Your task to perform on an android device: Open CNN.com Image 0: 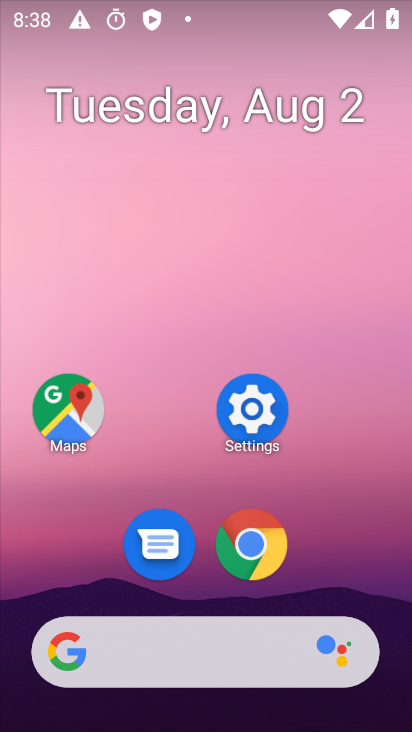
Step 0: click (250, 544)
Your task to perform on an android device: Open CNN.com Image 1: 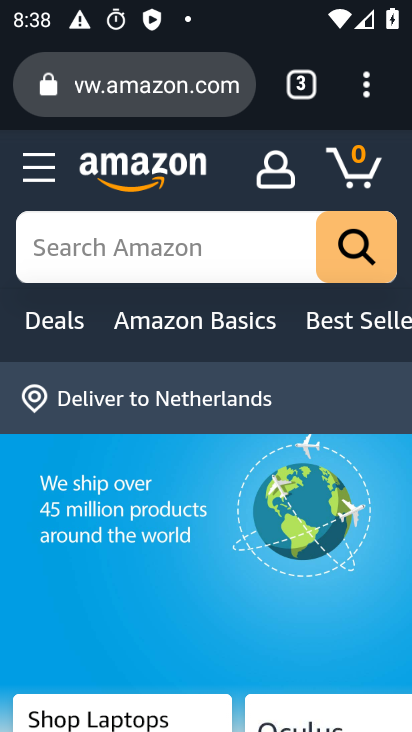
Step 1: drag from (364, 91) to (179, 167)
Your task to perform on an android device: Open CNN.com Image 2: 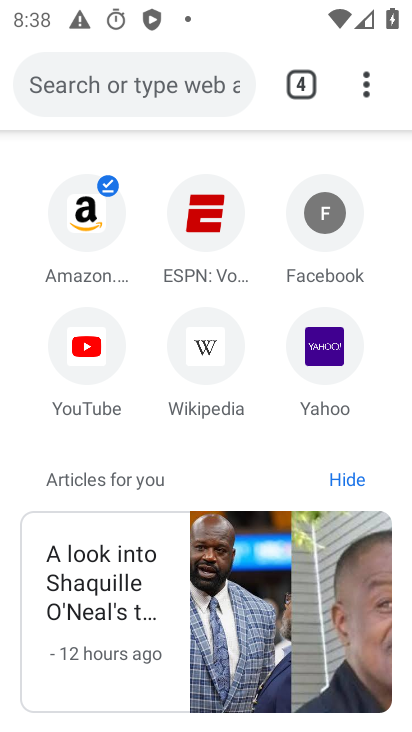
Step 2: type "CNN.com"
Your task to perform on an android device: Open CNN.com Image 3: 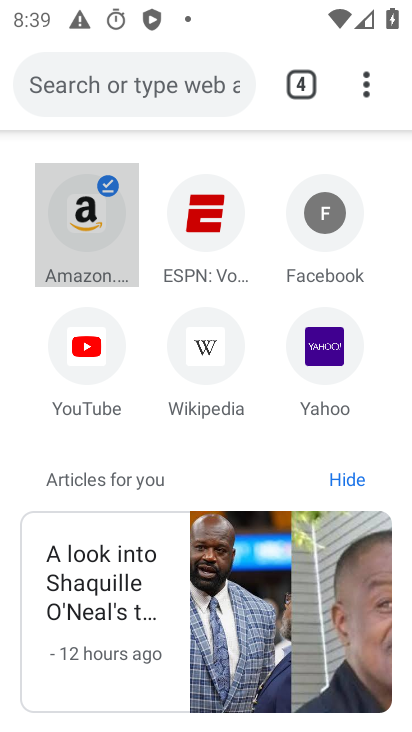
Step 3: click (142, 84)
Your task to perform on an android device: Open CNN.com Image 4: 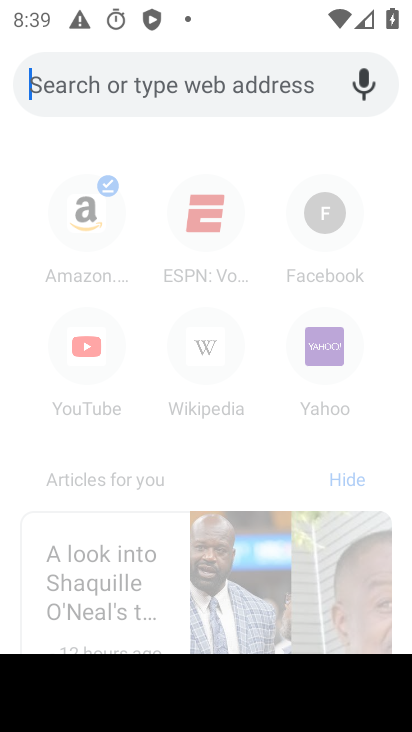
Step 4: type "CNN.com"
Your task to perform on an android device: Open CNN.com Image 5: 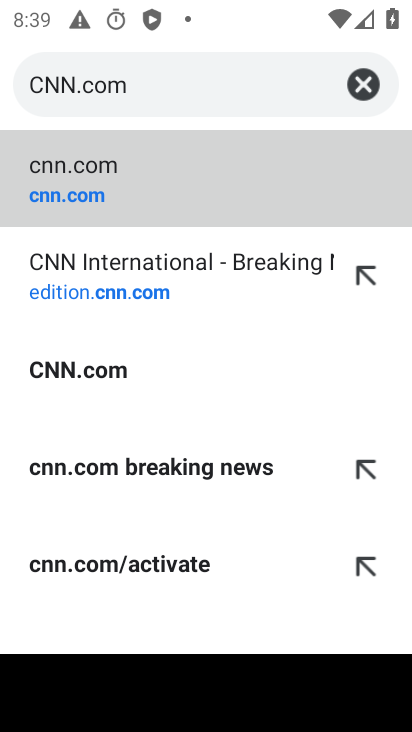
Step 5: click (151, 194)
Your task to perform on an android device: Open CNN.com Image 6: 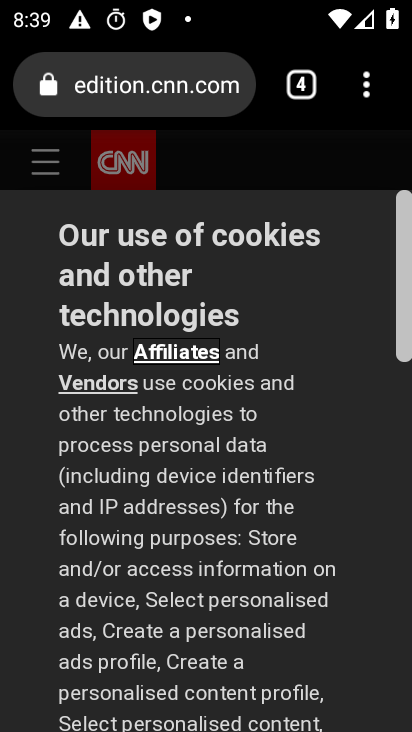
Step 6: drag from (151, 608) to (353, 93)
Your task to perform on an android device: Open CNN.com Image 7: 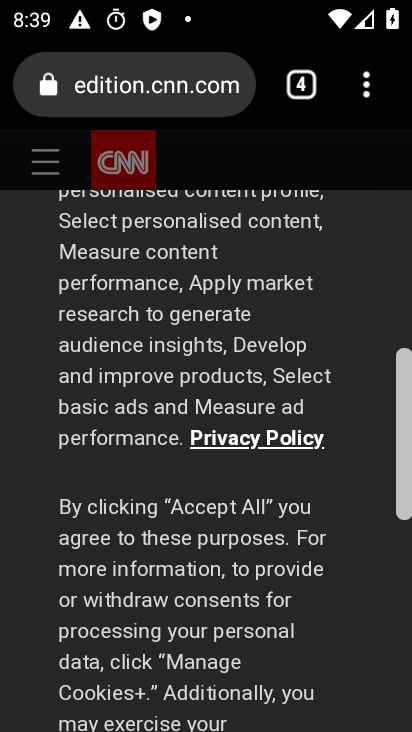
Step 7: drag from (165, 639) to (341, 169)
Your task to perform on an android device: Open CNN.com Image 8: 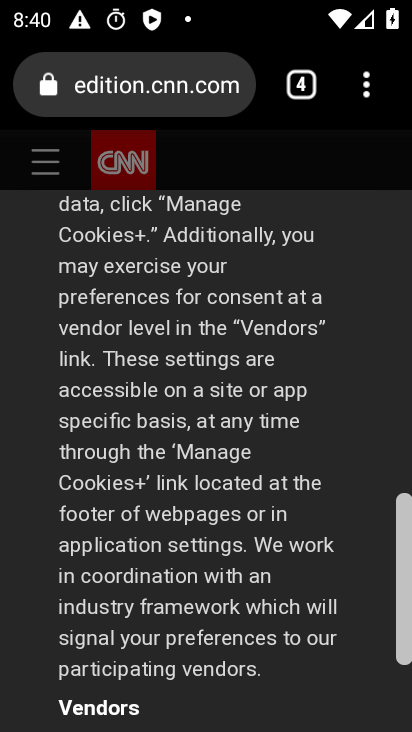
Step 8: drag from (214, 599) to (356, 136)
Your task to perform on an android device: Open CNN.com Image 9: 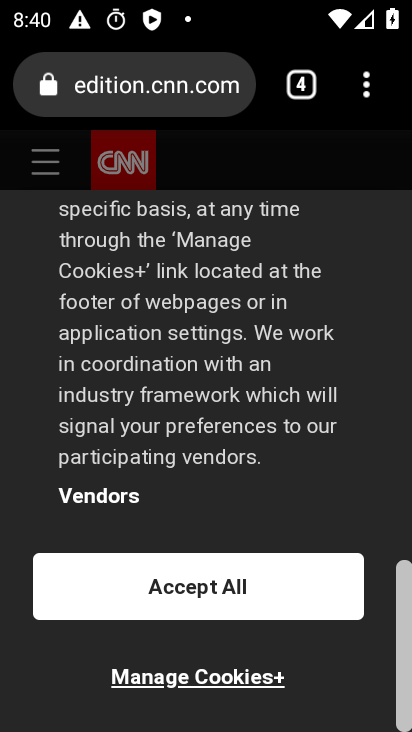
Step 9: click (190, 582)
Your task to perform on an android device: Open CNN.com Image 10: 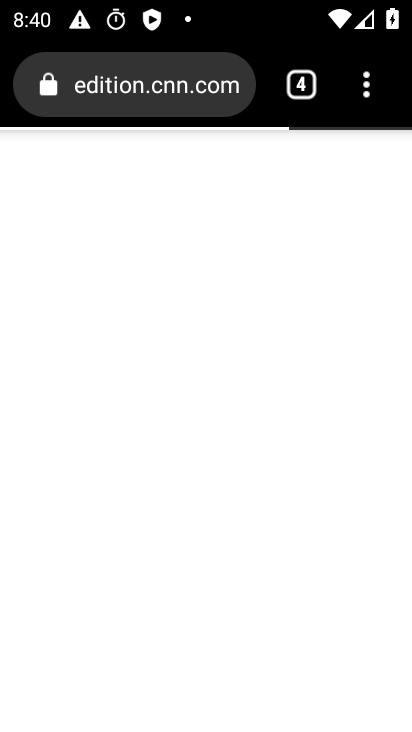
Step 10: task complete